Your task to perform on an android device: read, delete, or share a saved page in the chrome app Image 0: 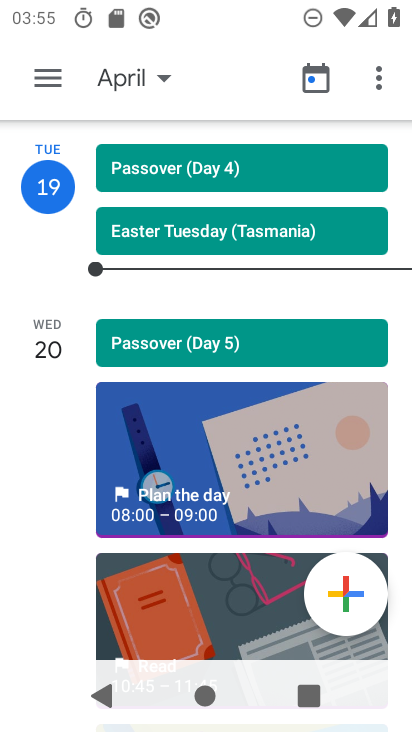
Step 0: press home button
Your task to perform on an android device: read, delete, or share a saved page in the chrome app Image 1: 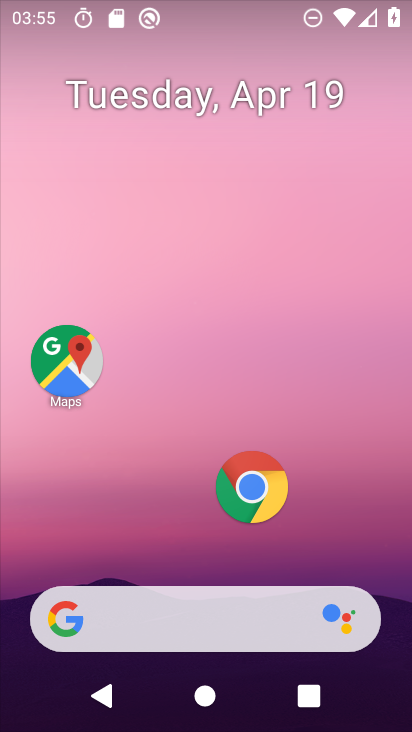
Step 1: click (251, 475)
Your task to perform on an android device: read, delete, or share a saved page in the chrome app Image 2: 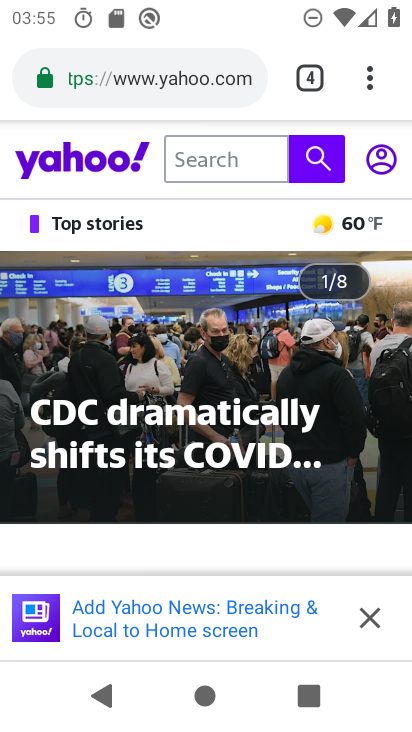
Step 2: click (377, 64)
Your task to perform on an android device: read, delete, or share a saved page in the chrome app Image 3: 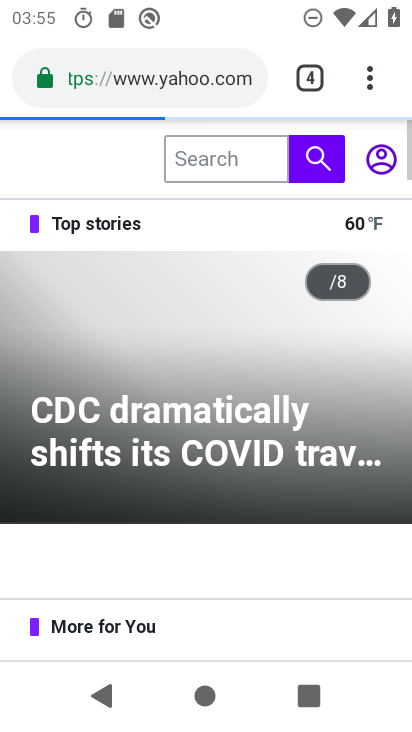
Step 3: drag from (366, 67) to (124, 393)
Your task to perform on an android device: read, delete, or share a saved page in the chrome app Image 4: 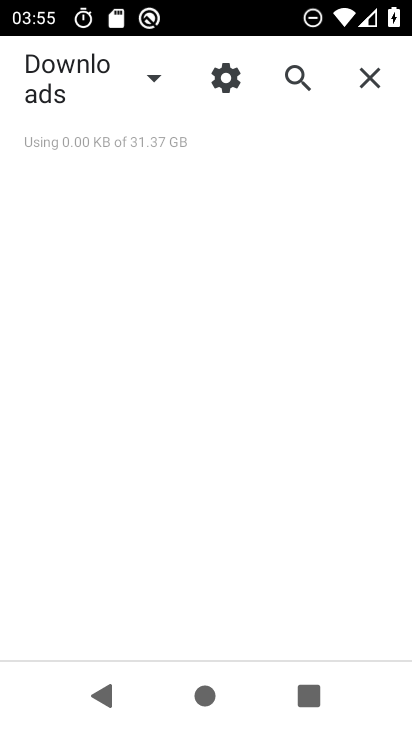
Step 4: click (133, 68)
Your task to perform on an android device: read, delete, or share a saved page in the chrome app Image 5: 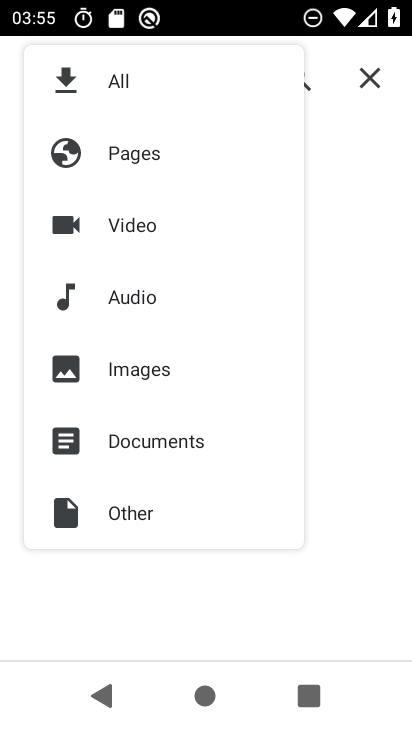
Step 5: click (134, 153)
Your task to perform on an android device: read, delete, or share a saved page in the chrome app Image 6: 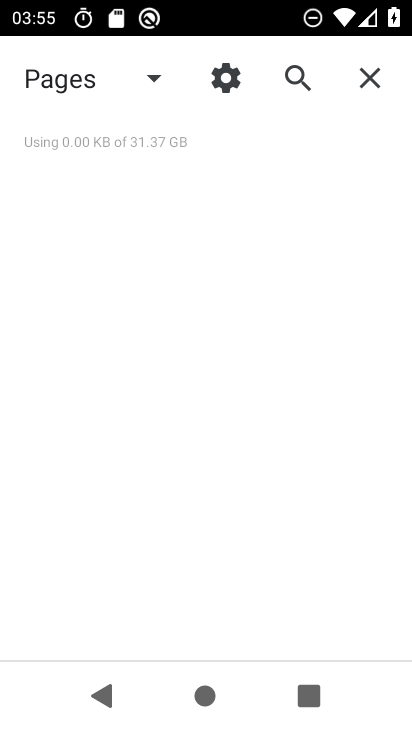
Step 6: task complete